Your task to perform on an android device: toggle sleep mode Image 0: 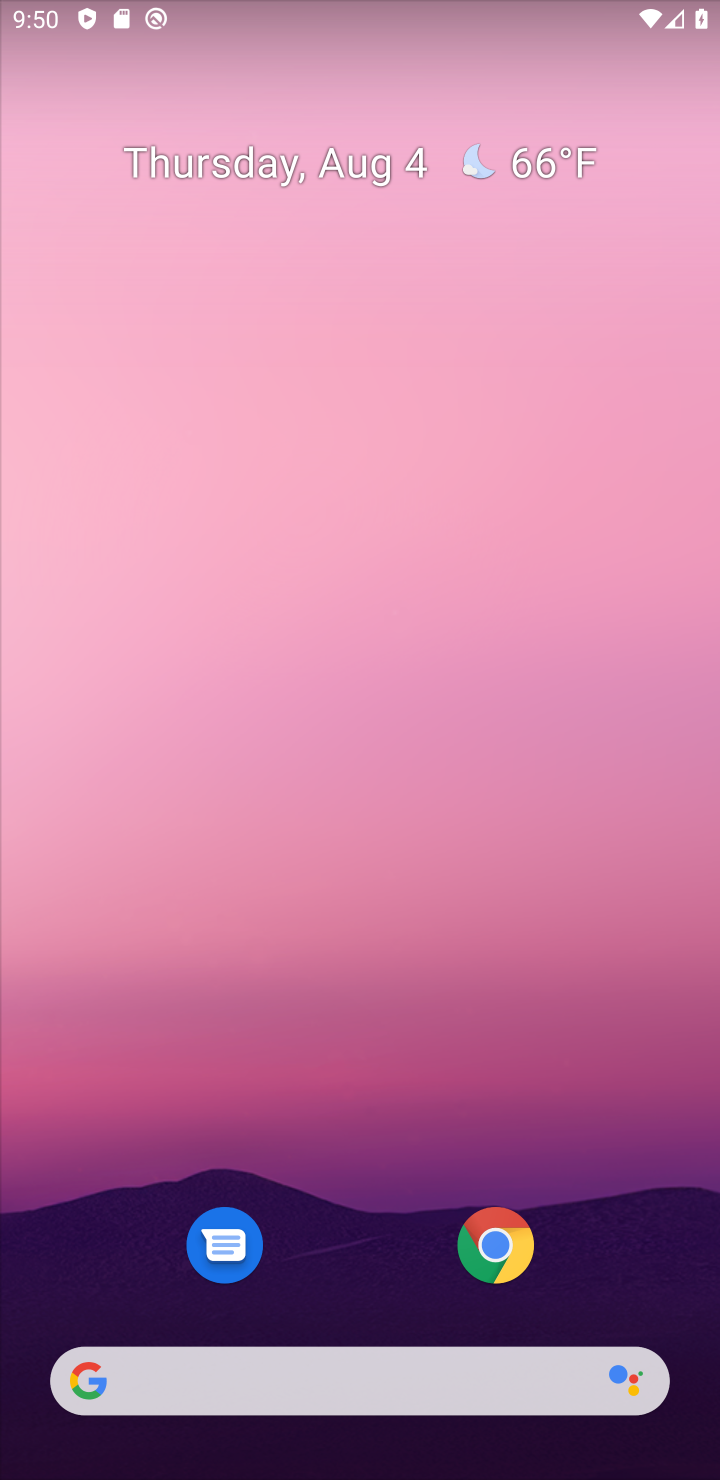
Step 0: drag from (632, 1202) to (353, 101)
Your task to perform on an android device: toggle sleep mode Image 1: 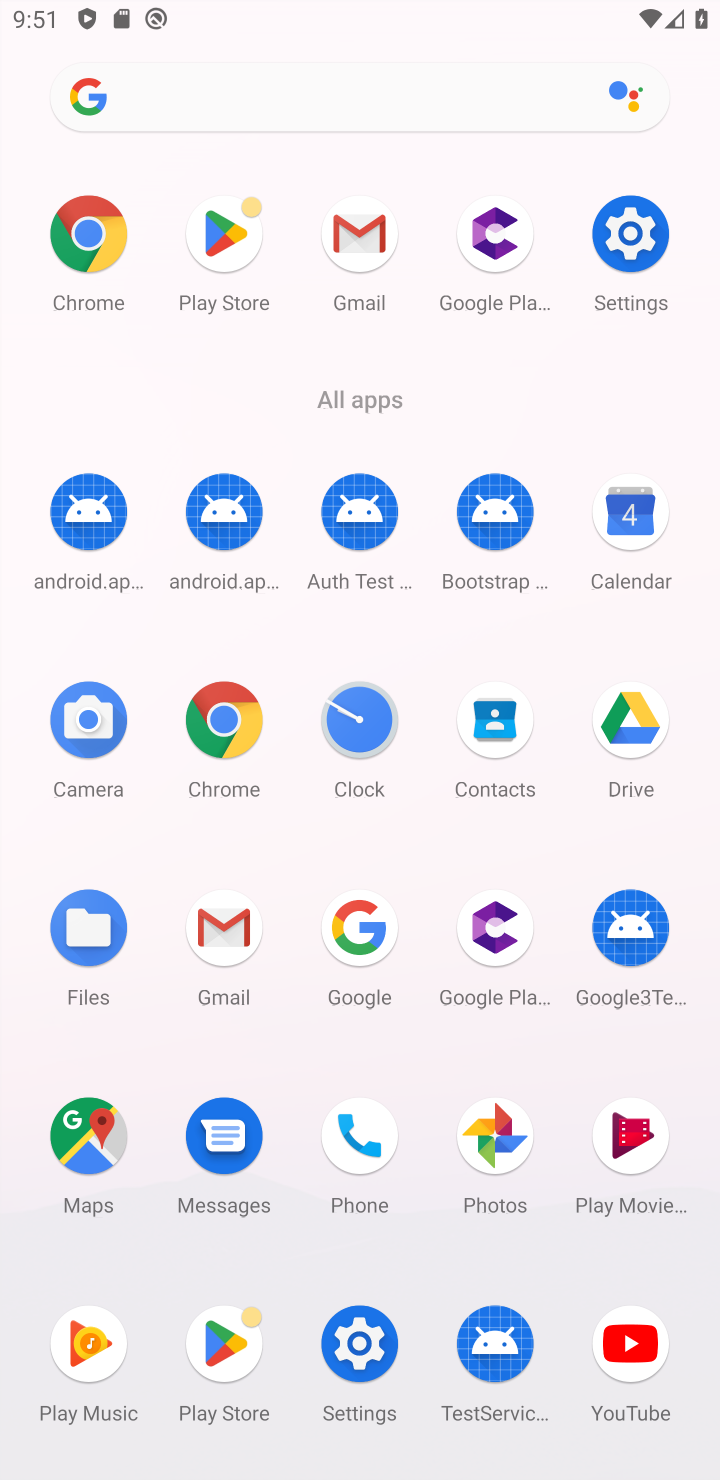
Step 1: click (366, 1351)
Your task to perform on an android device: toggle sleep mode Image 2: 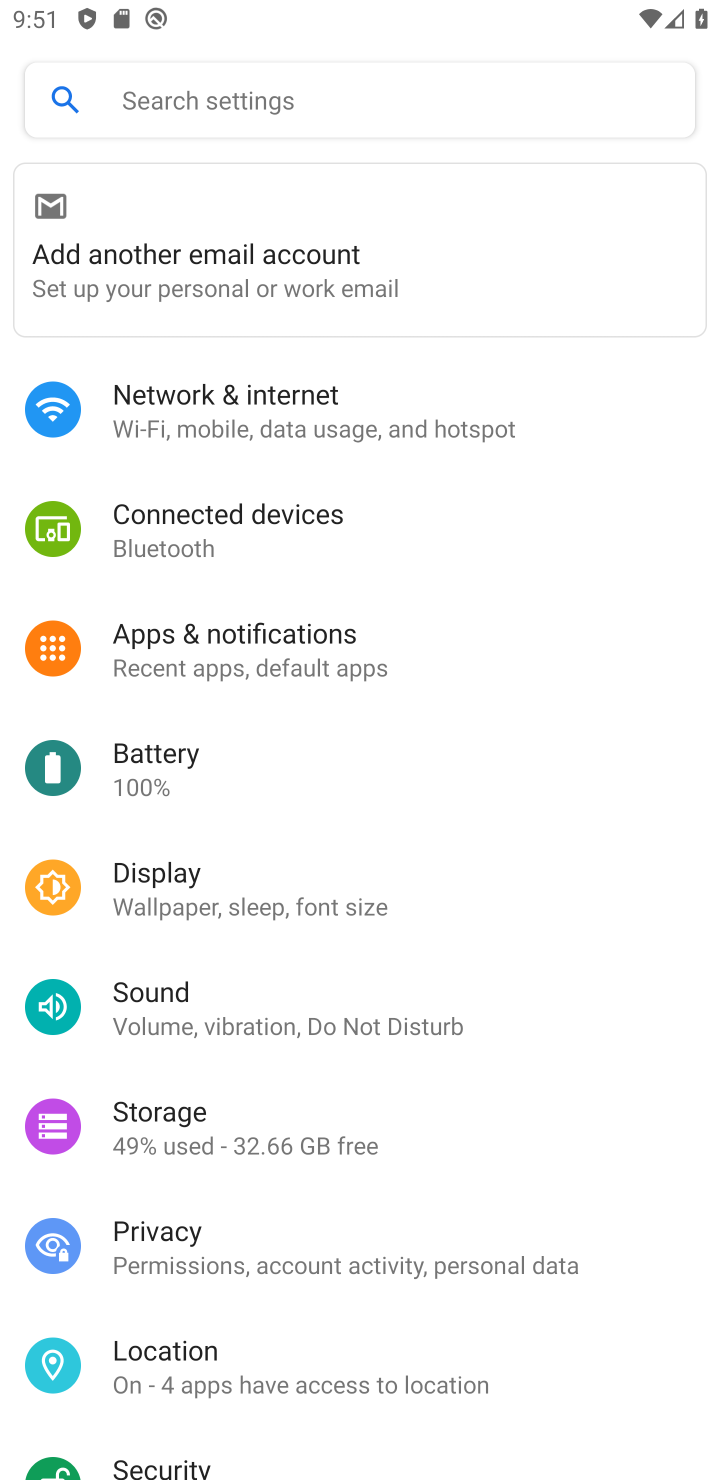
Step 2: click (243, 914)
Your task to perform on an android device: toggle sleep mode Image 3: 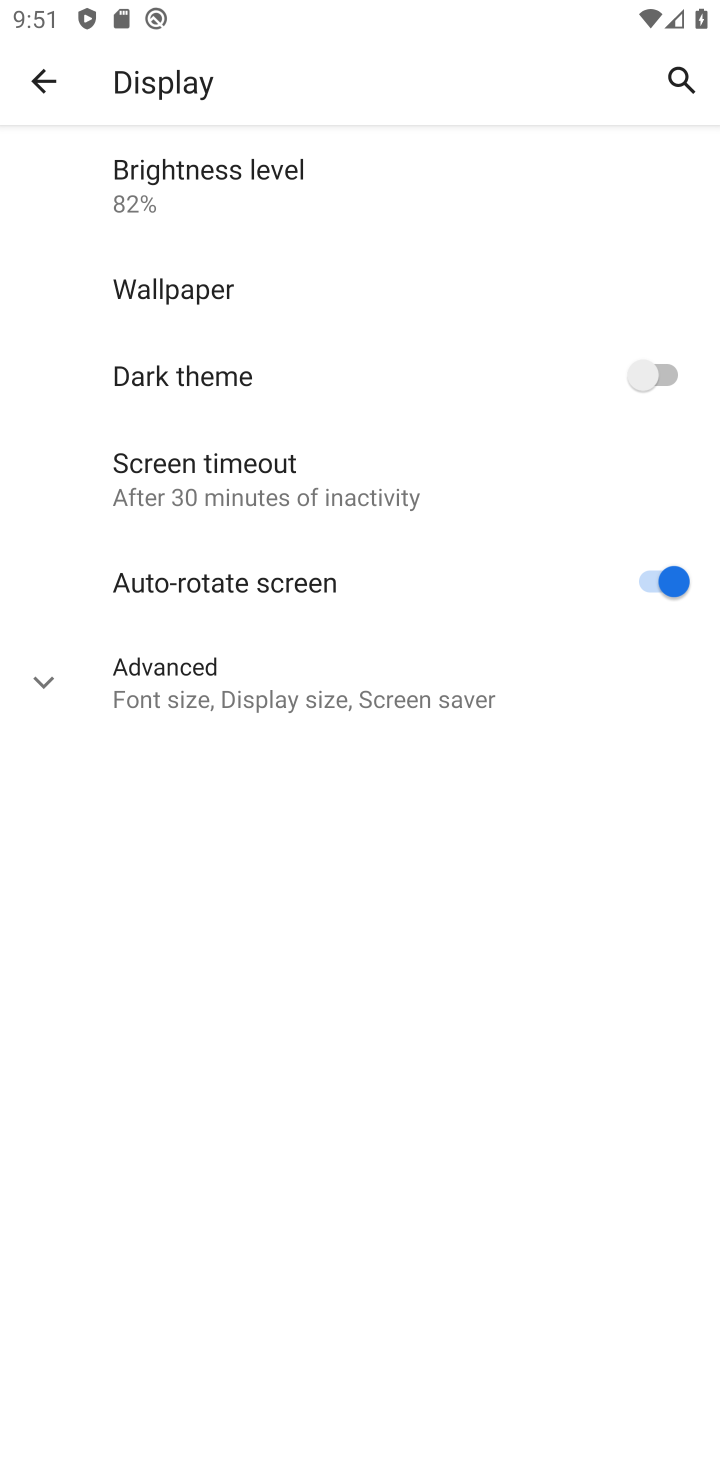
Step 3: click (261, 468)
Your task to perform on an android device: toggle sleep mode Image 4: 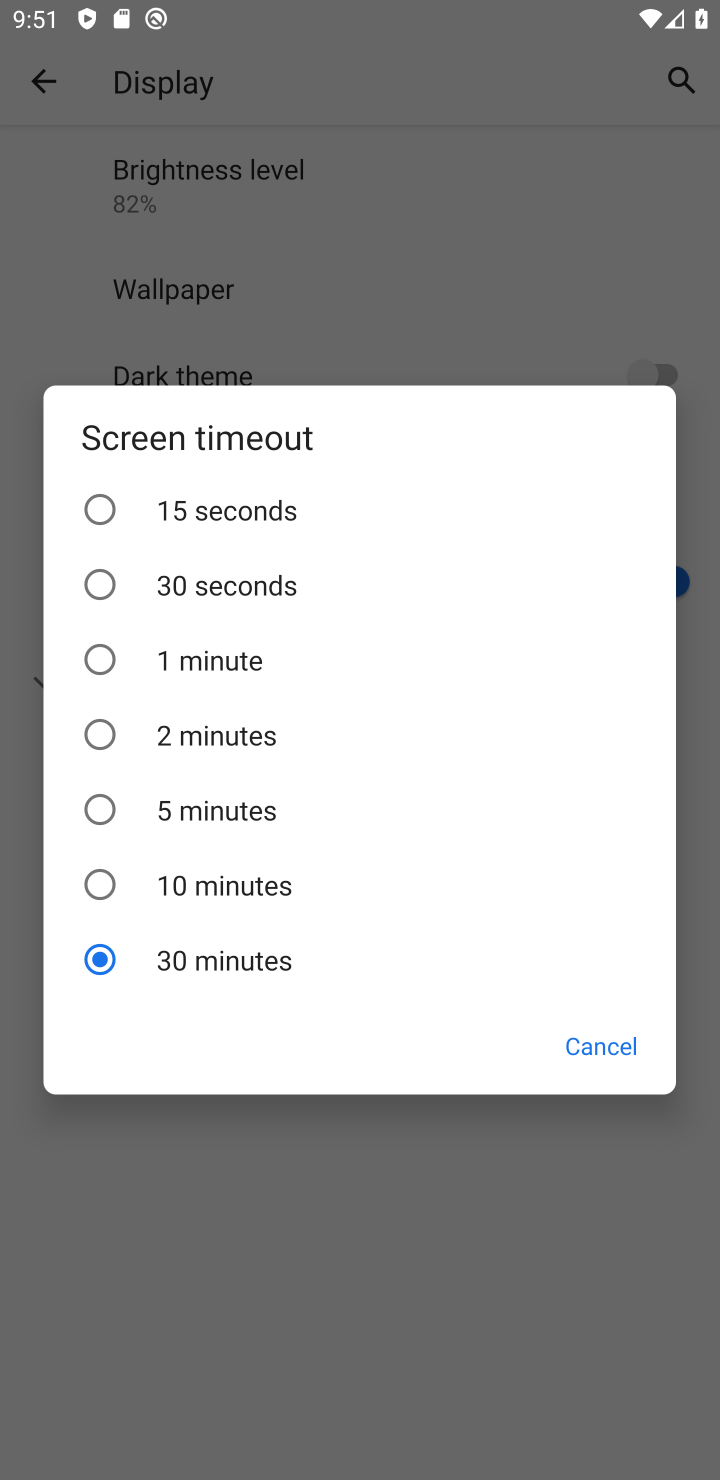
Step 4: click (263, 884)
Your task to perform on an android device: toggle sleep mode Image 5: 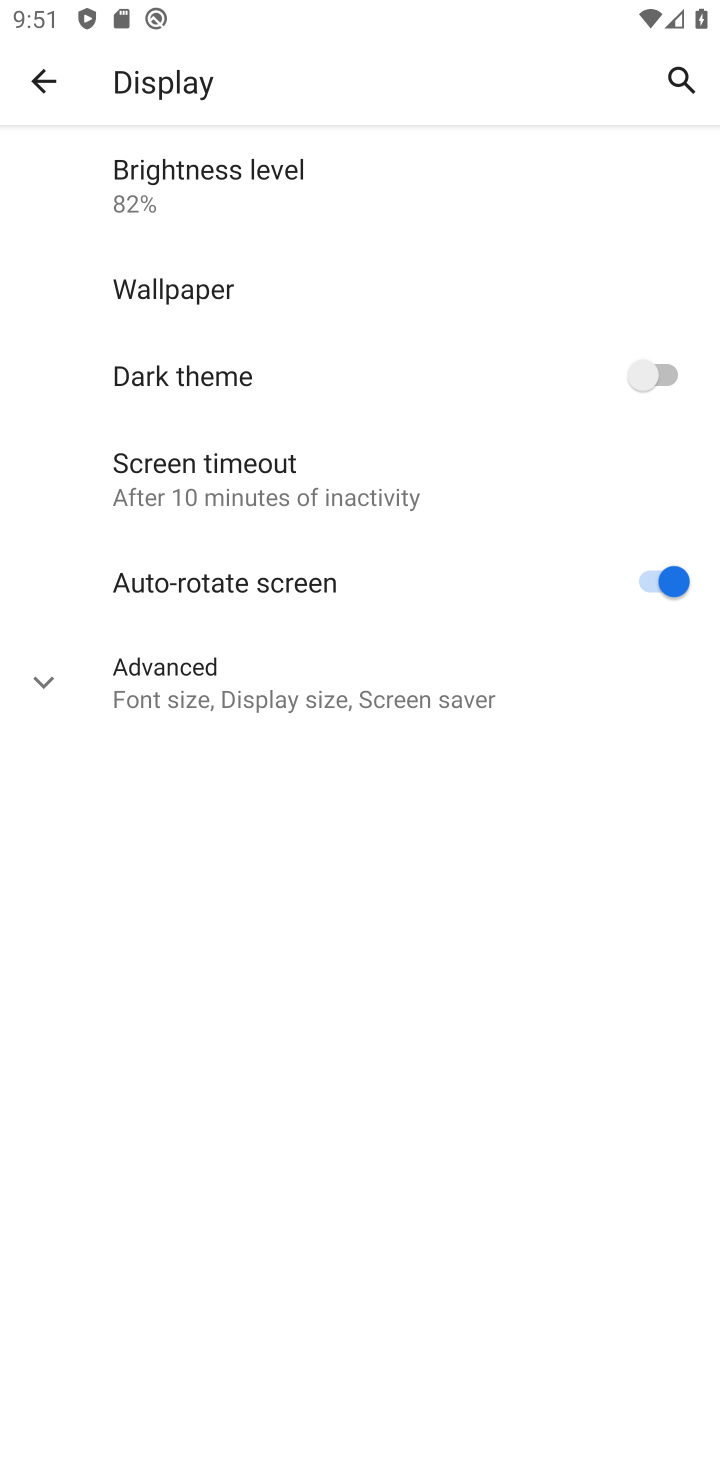
Step 5: task complete